Your task to perform on an android device: check data usage Image 0: 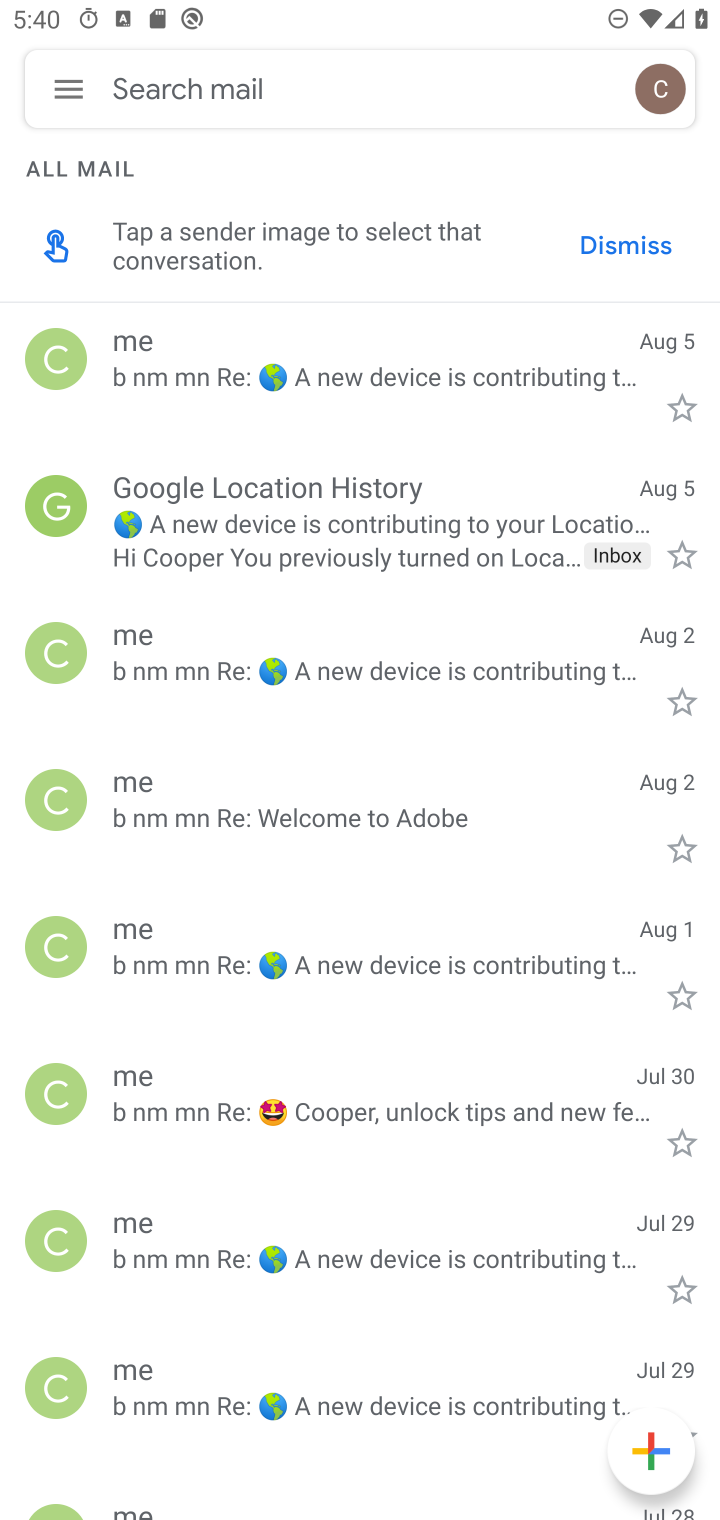
Step 0: press home button
Your task to perform on an android device: check data usage Image 1: 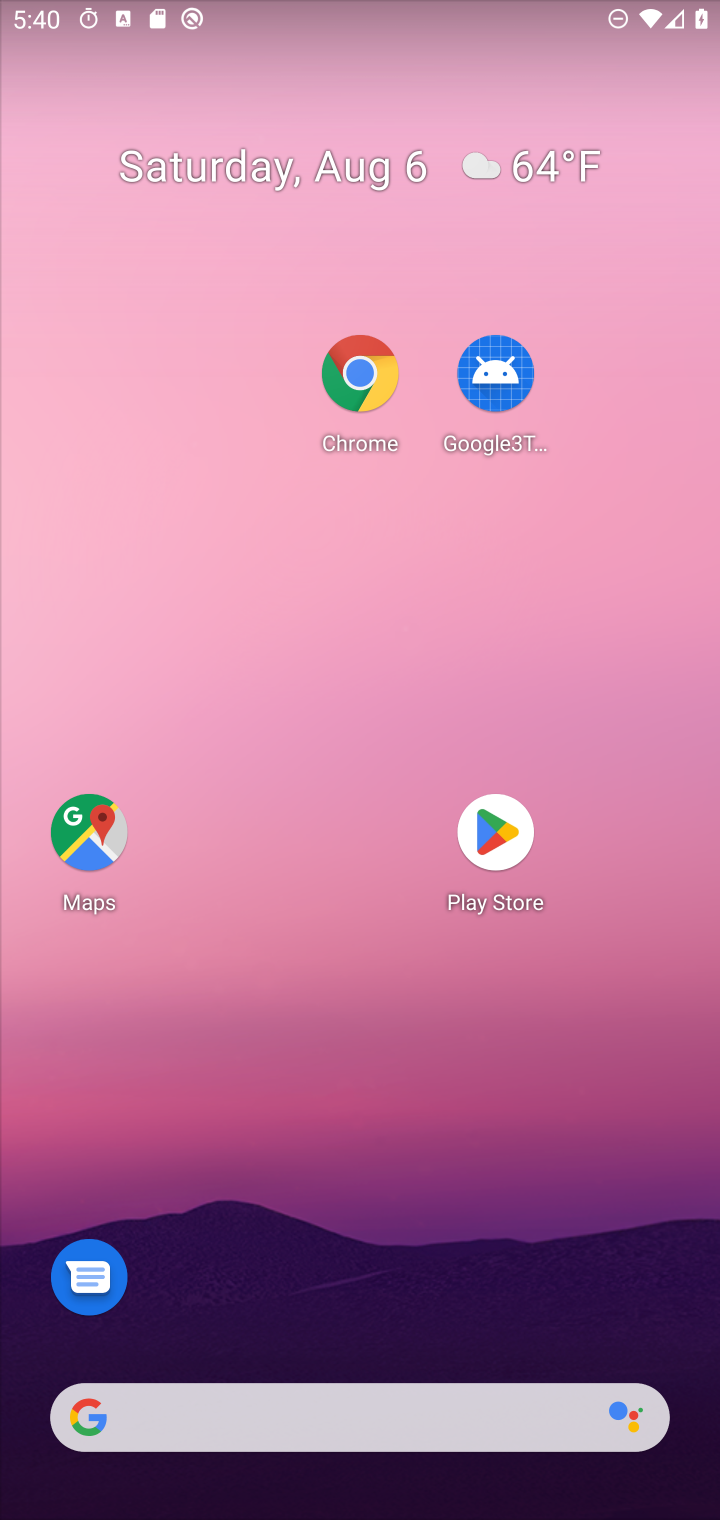
Step 1: drag from (278, 1446) to (305, 3)
Your task to perform on an android device: check data usage Image 2: 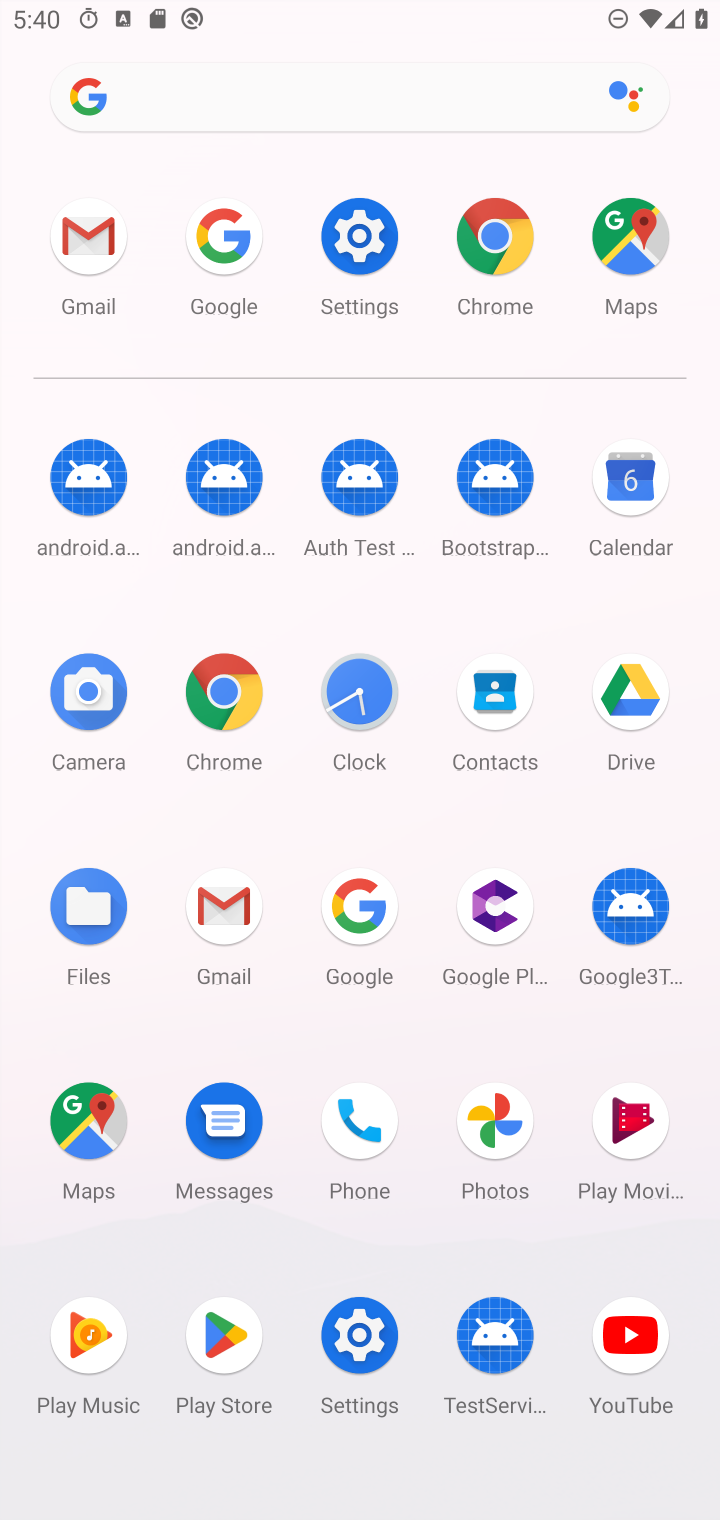
Step 2: click (371, 244)
Your task to perform on an android device: check data usage Image 3: 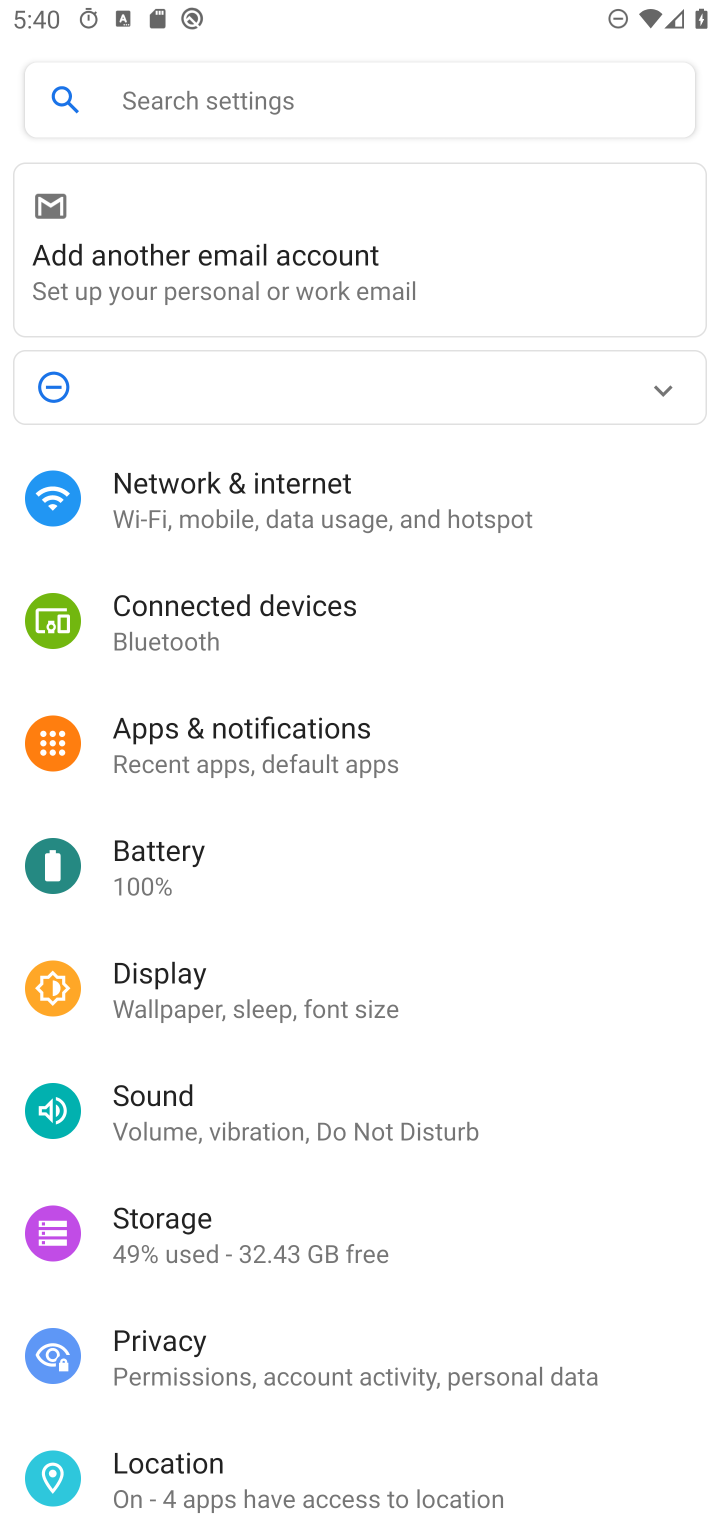
Step 3: click (271, 518)
Your task to perform on an android device: check data usage Image 4: 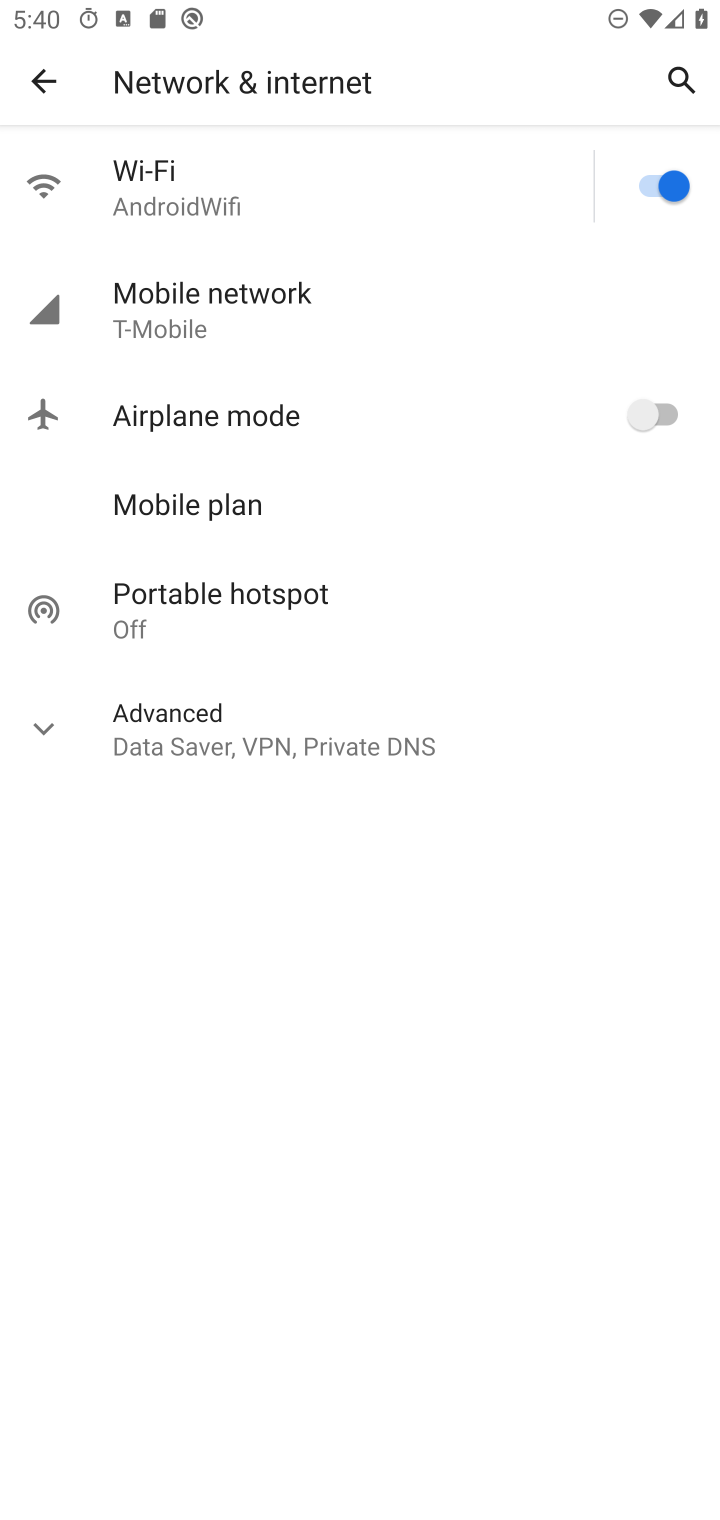
Step 4: click (232, 309)
Your task to perform on an android device: check data usage Image 5: 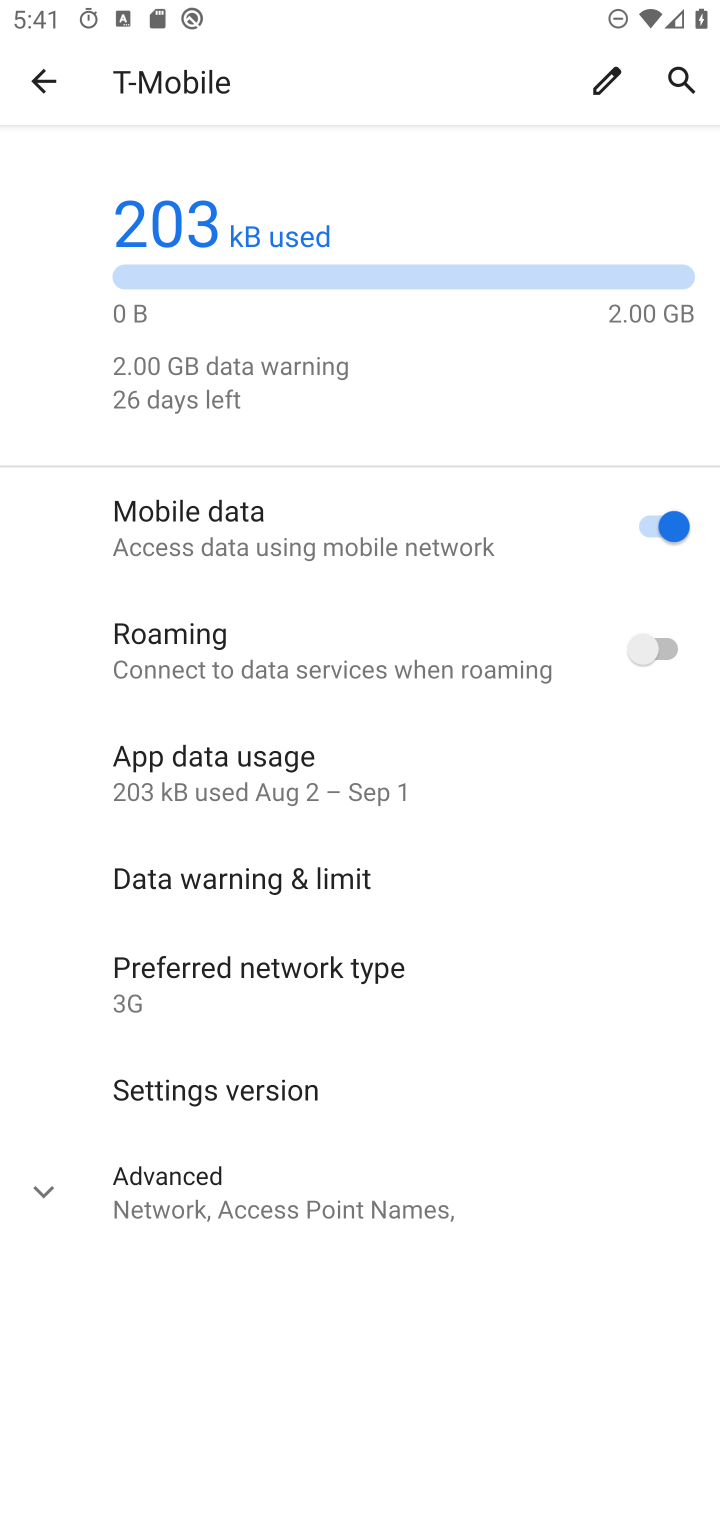
Step 5: task complete